Your task to perform on an android device: Open Amazon Image 0: 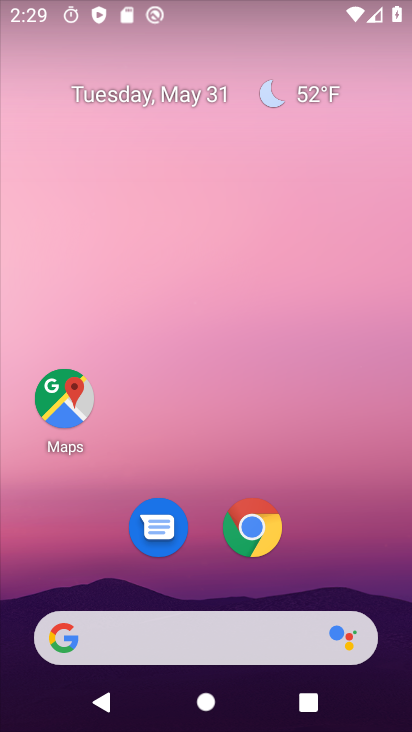
Step 0: click (263, 537)
Your task to perform on an android device: Open Amazon Image 1: 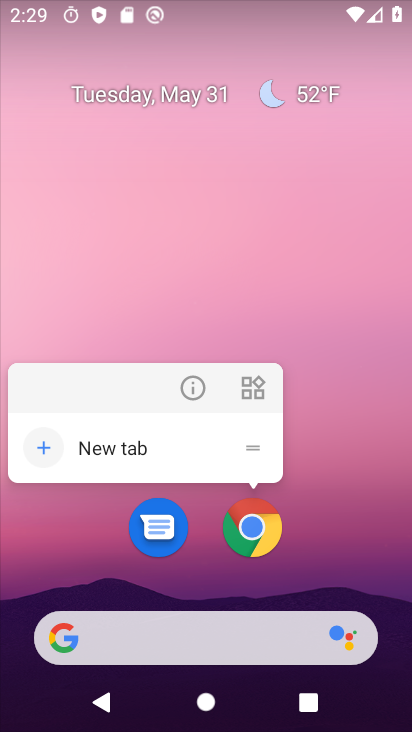
Step 1: click (264, 541)
Your task to perform on an android device: Open Amazon Image 2: 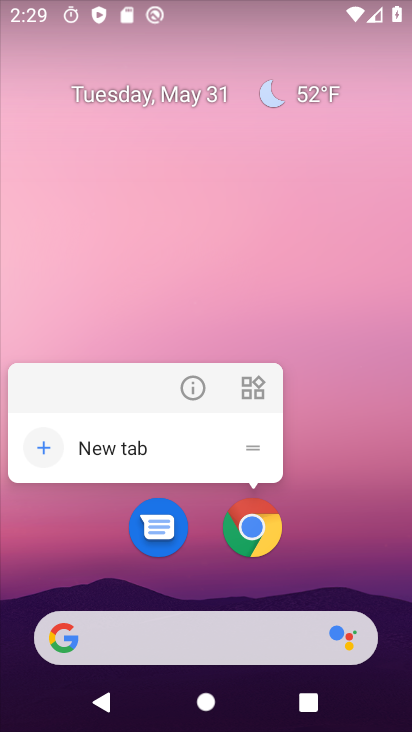
Step 2: click (261, 549)
Your task to perform on an android device: Open Amazon Image 3: 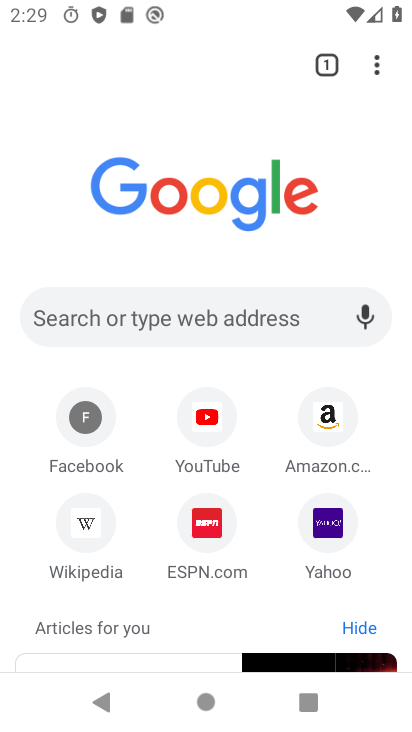
Step 3: click (338, 425)
Your task to perform on an android device: Open Amazon Image 4: 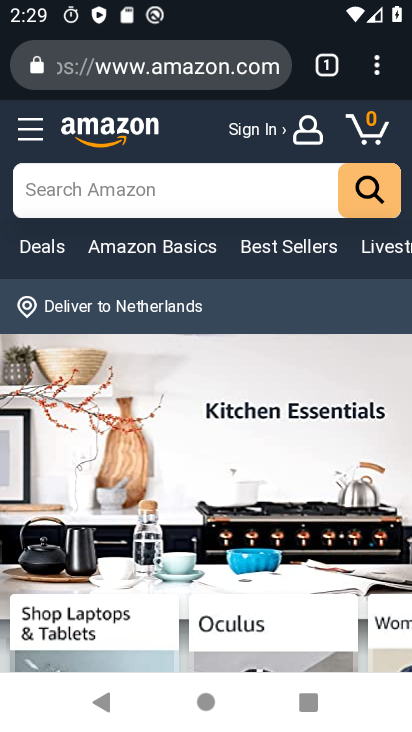
Step 4: task complete